Your task to perform on an android device: turn vacation reply on in the gmail app Image 0: 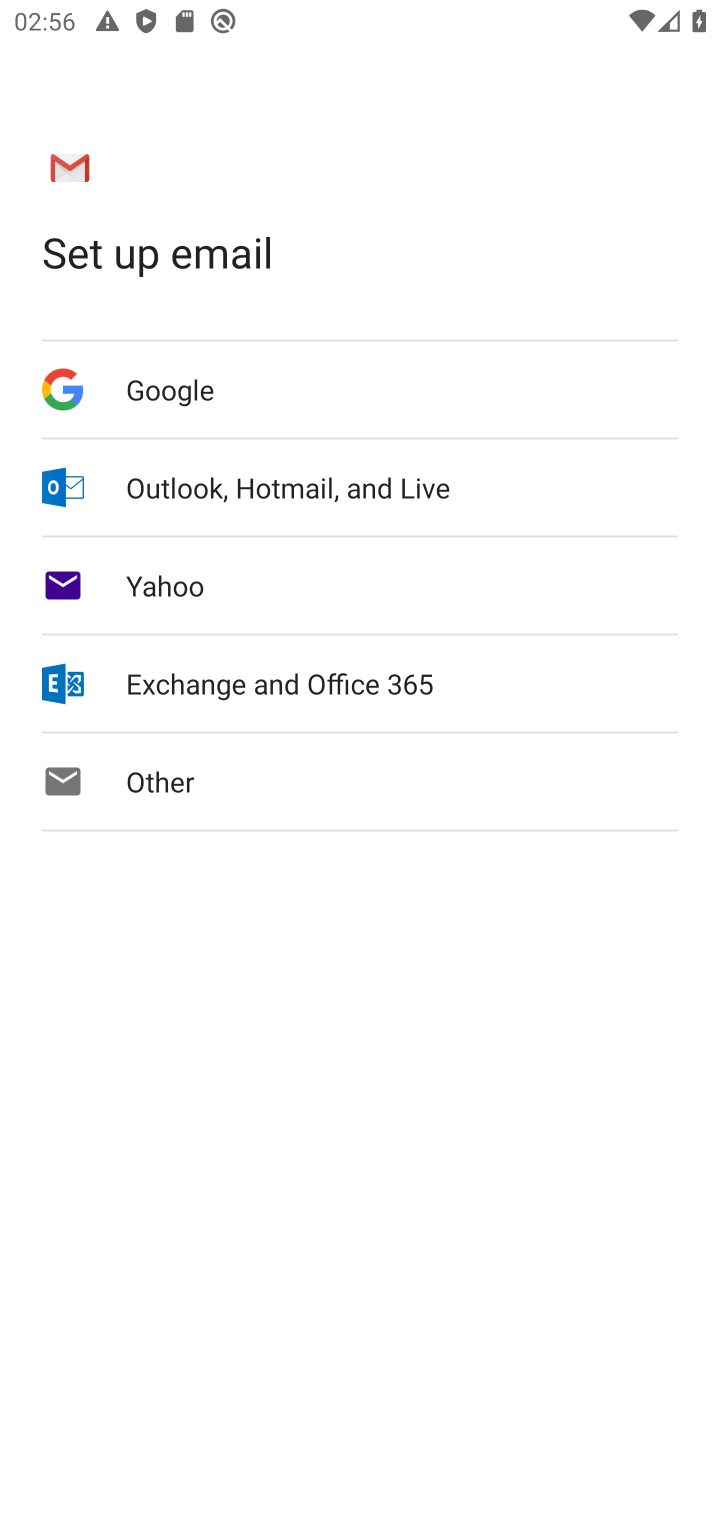
Step 0: press home button
Your task to perform on an android device: turn vacation reply on in the gmail app Image 1: 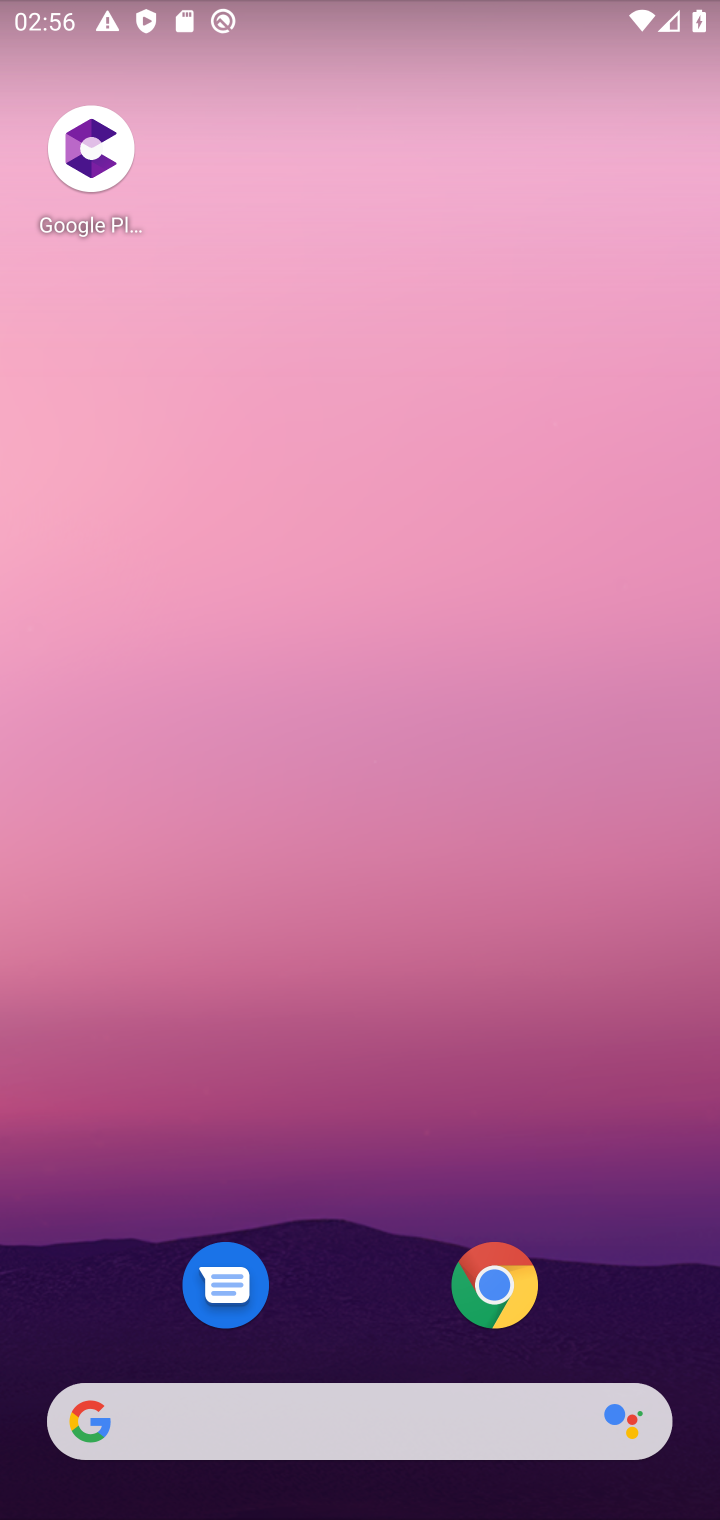
Step 1: drag from (356, 1280) to (442, 11)
Your task to perform on an android device: turn vacation reply on in the gmail app Image 2: 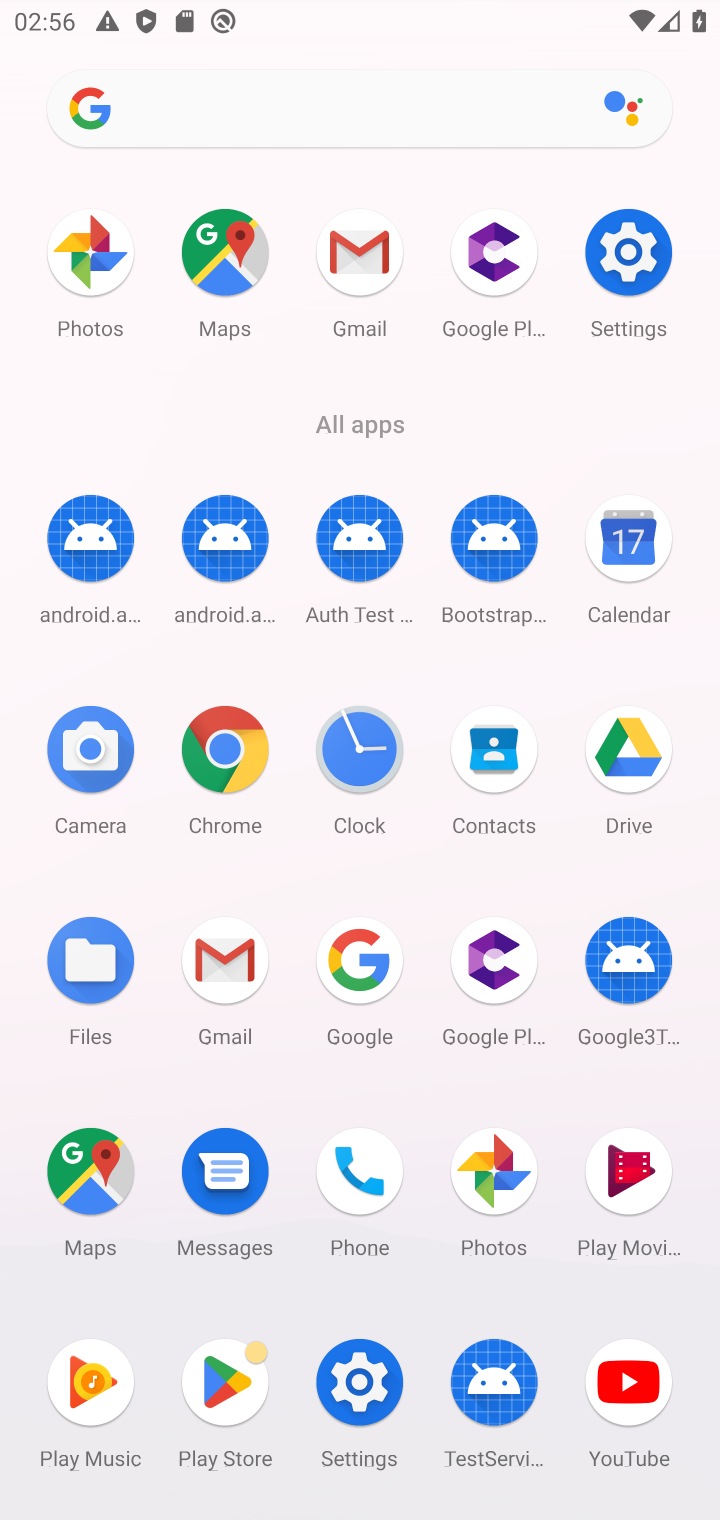
Step 2: click (227, 988)
Your task to perform on an android device: turn vacation reply on in the gmail app Image 3: 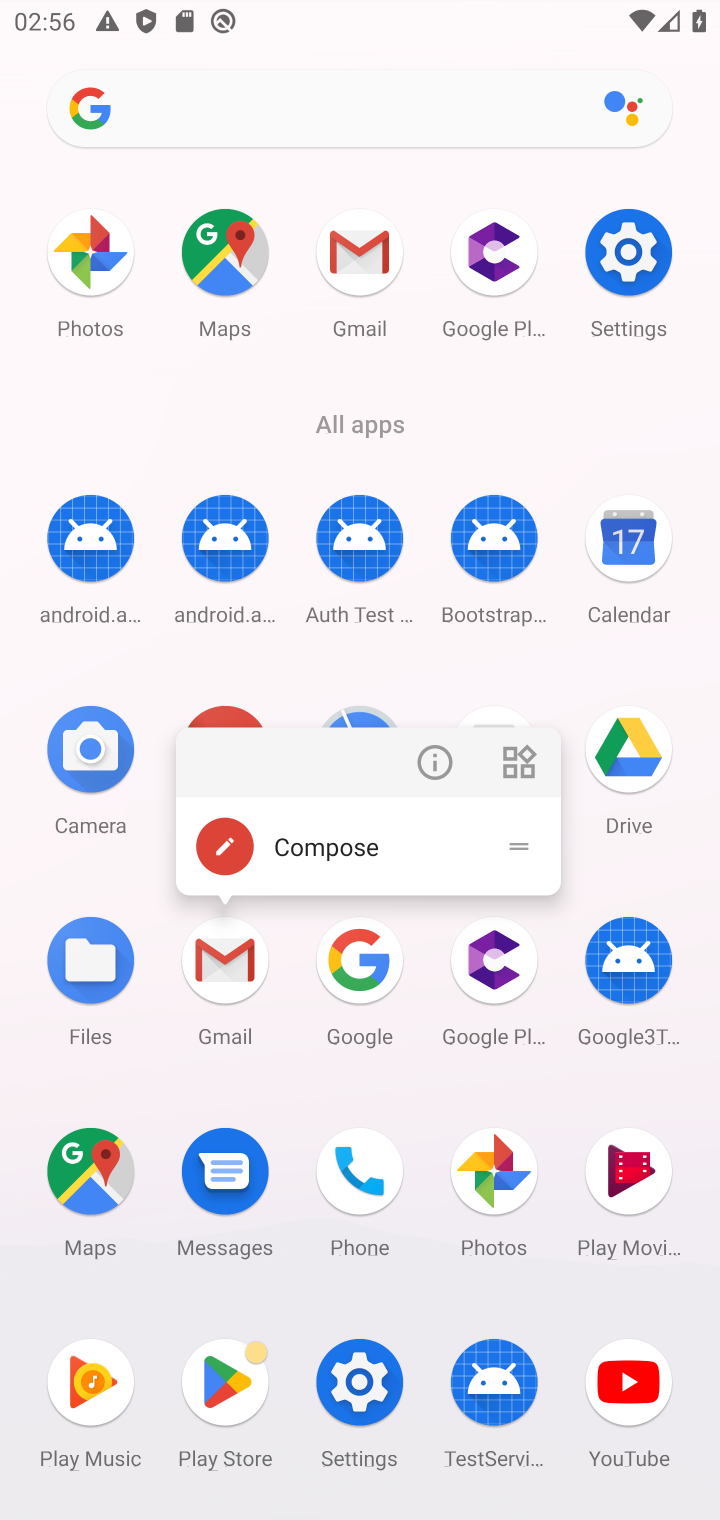
Step 3: click (251, 956)
Your task to perform on an android device: turn vacation reply on in the gmail app Image 4: 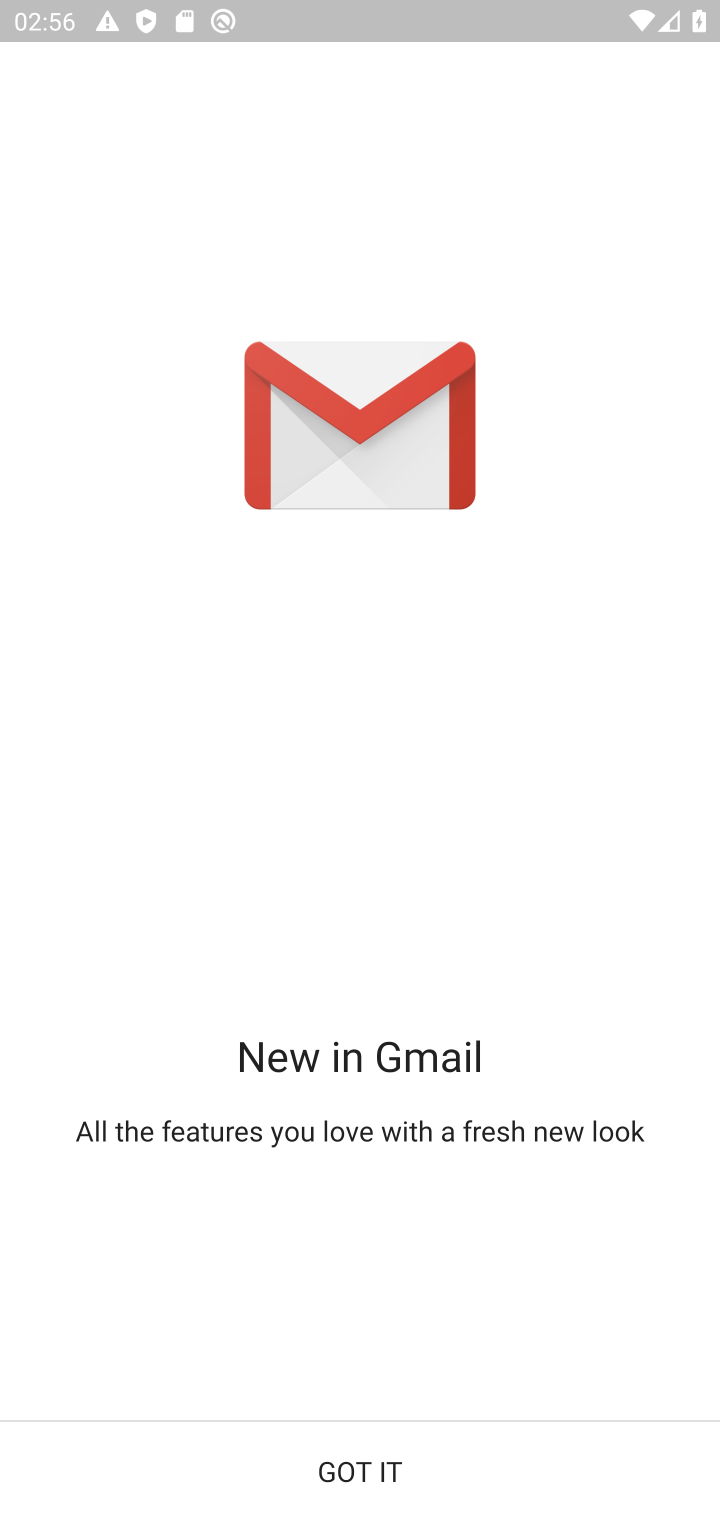
Step 4: click (408, 1468)
Your task to perform on an android device: turn vacation reply on in the gmail app Image 5: 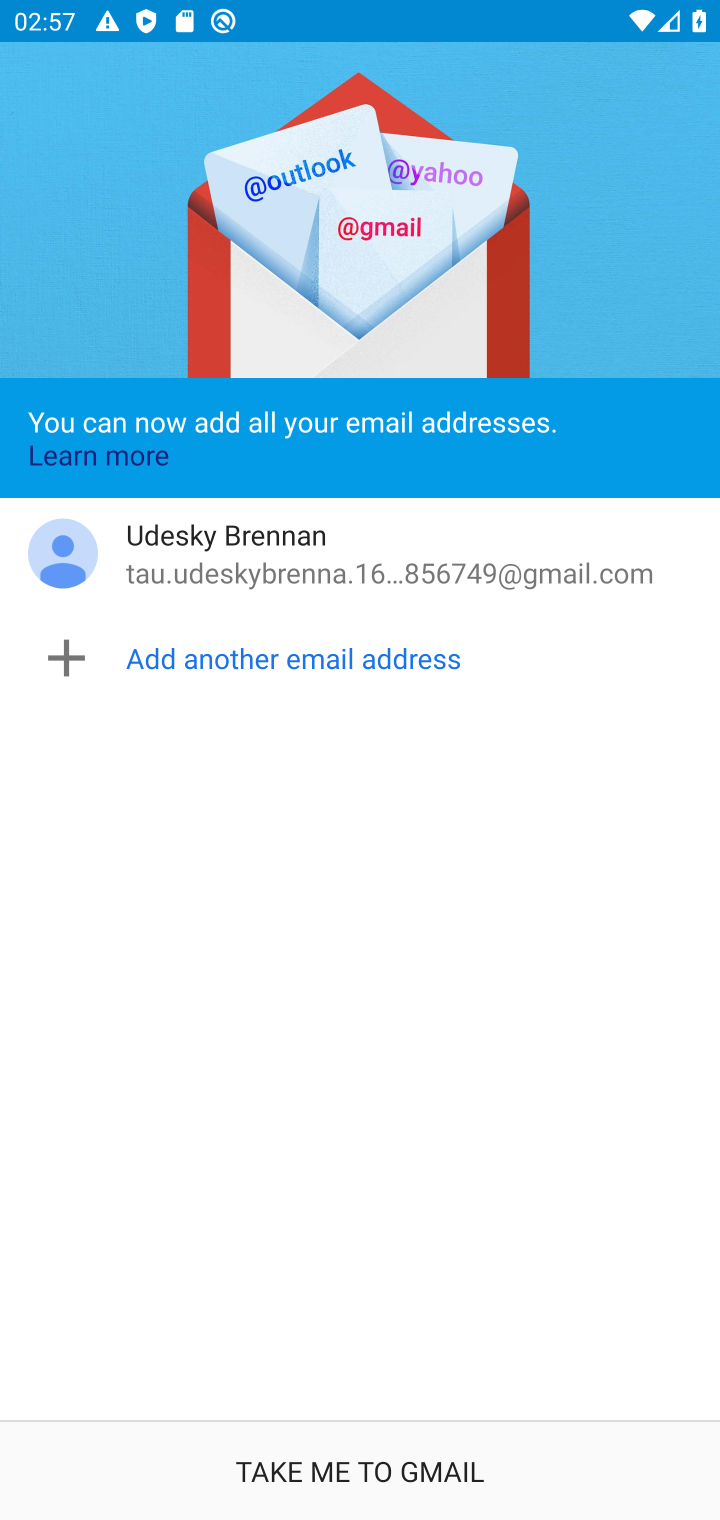
Step 5: click (363, 1434)
Your task to perform on an android device: turn vacation reply on in the gmail app Image 6: 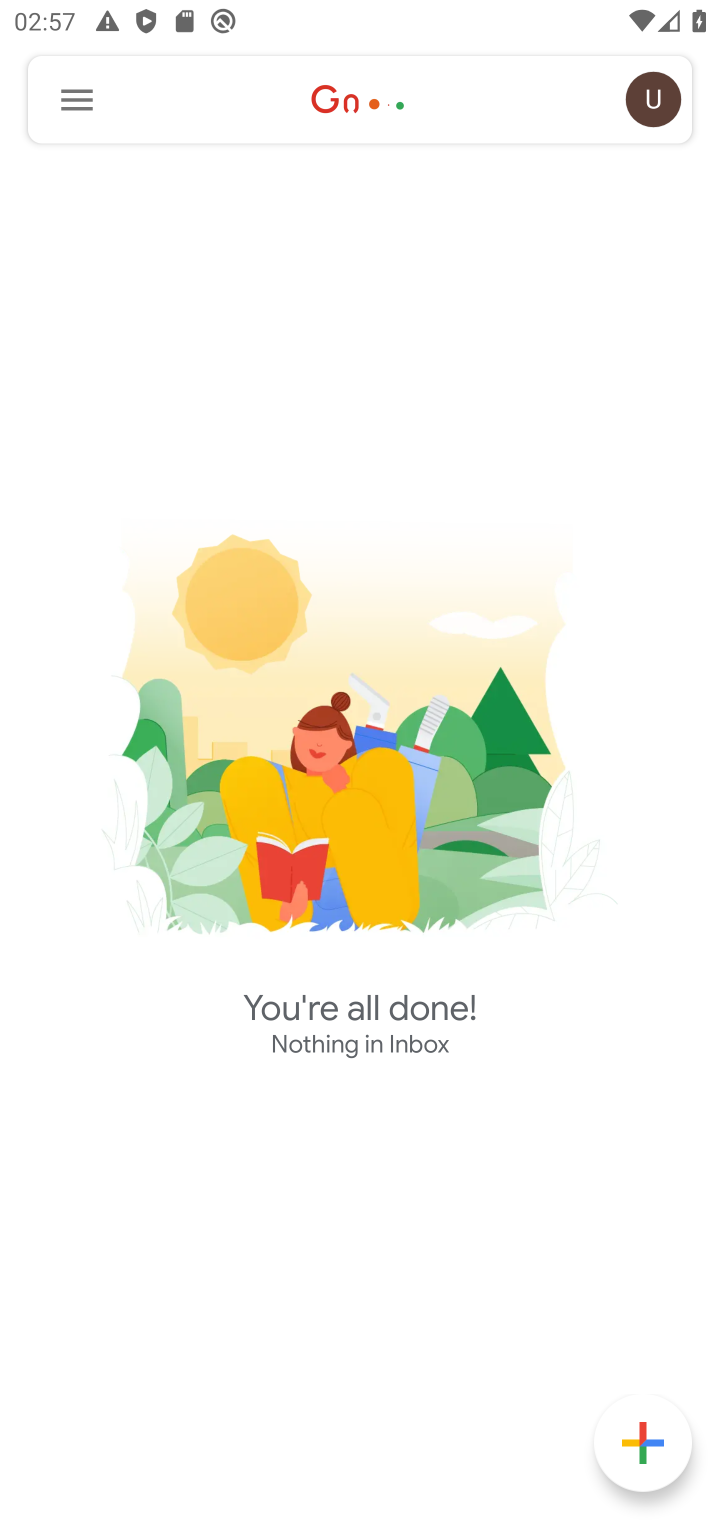
Step 6: click (85, 73)
Your task to perform on an android device: turn vacation reply on in the gmail app Image 7: 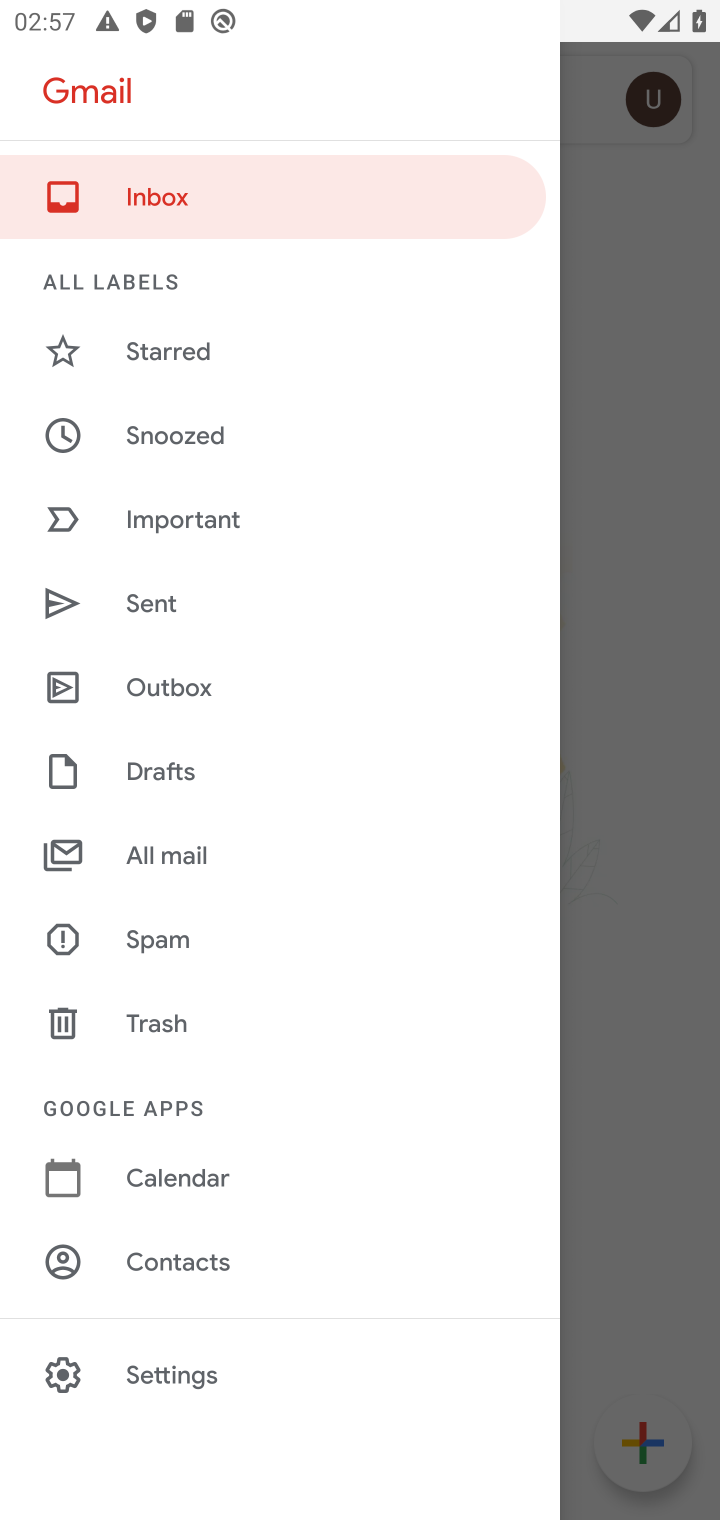
Step 7: drag from (198, 1249) to (256, 602)
Your task to perform on an android device: turn vacation reply on in the gmail app Image 8: 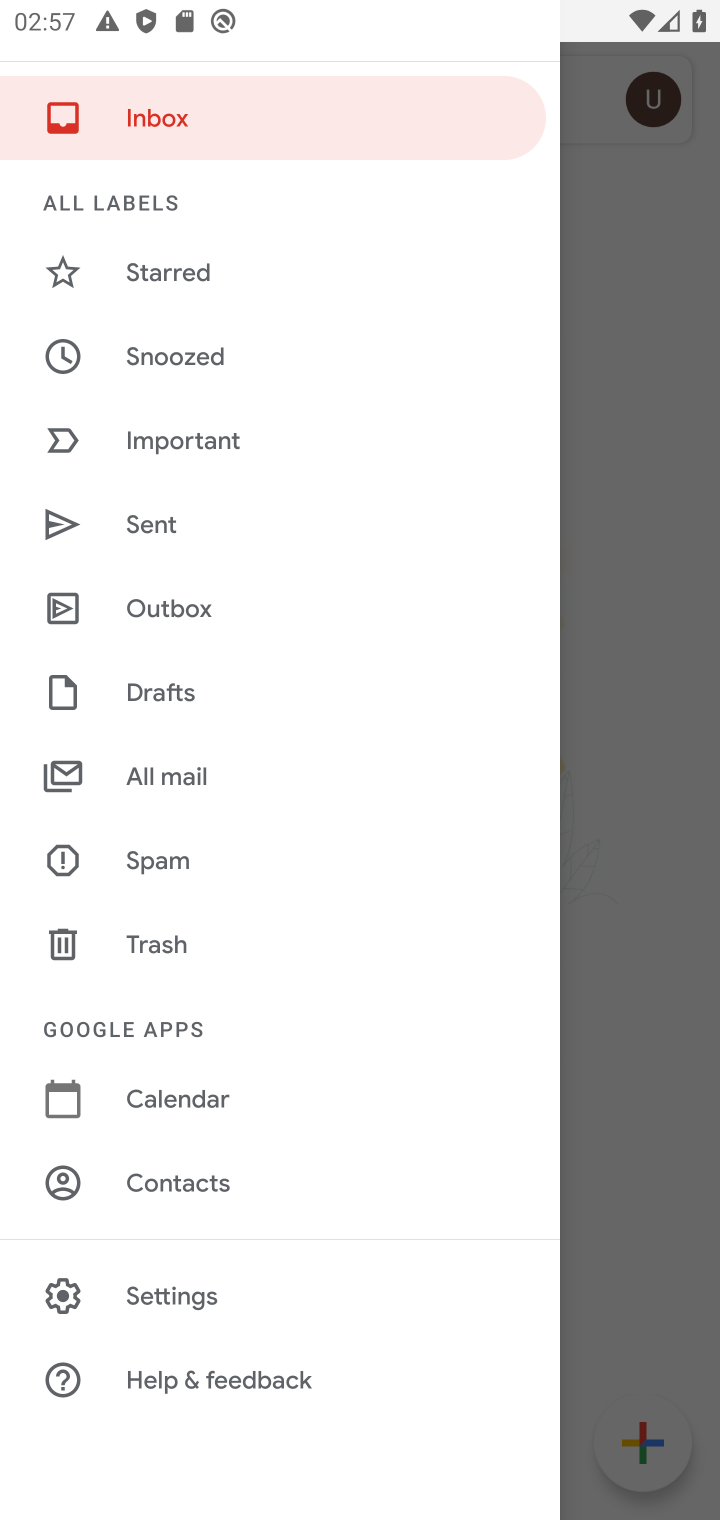
Step 8: click (171, 1297)
Your task to perform on an android device: turn vacation reply on in the gmail app Image 9: 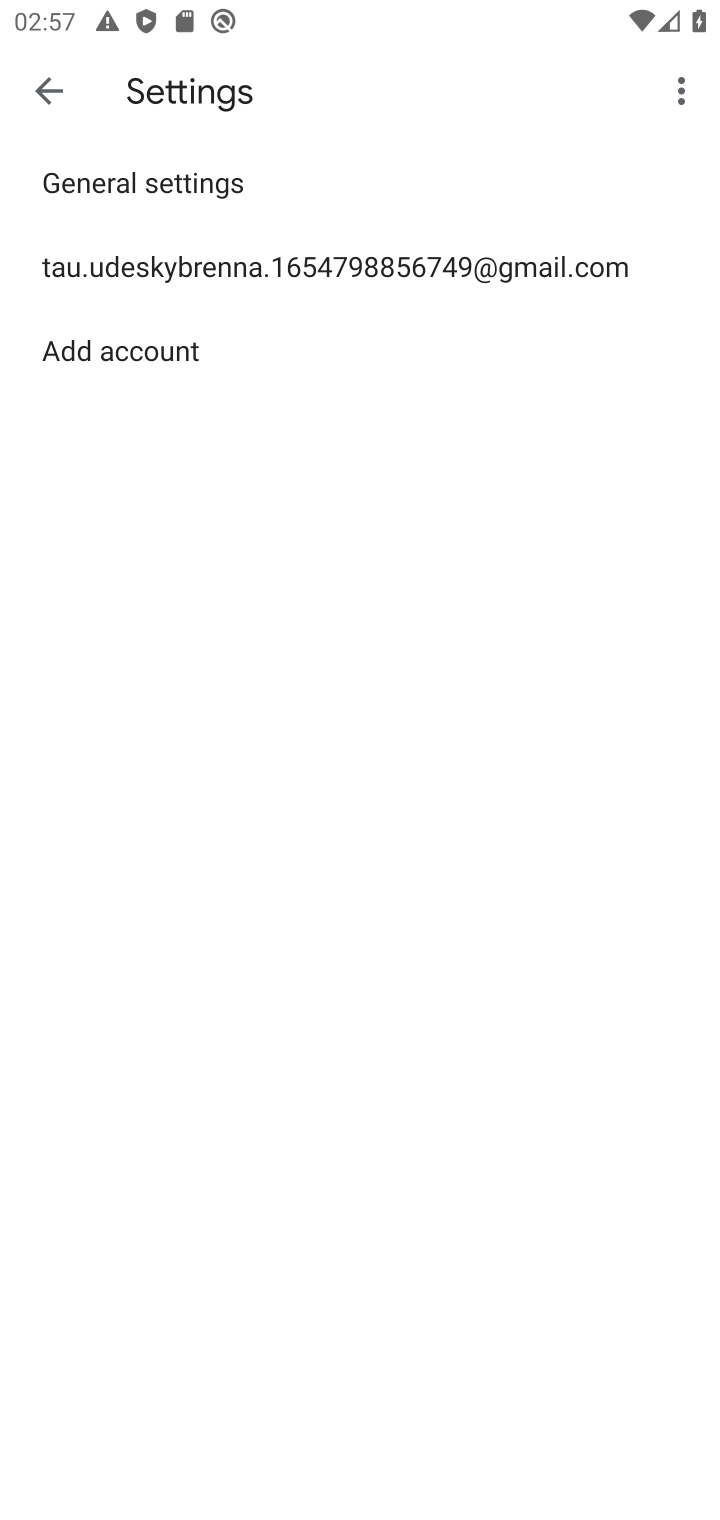
Step 9: click (258, 262)
Your task to perform on an android device: turn vacation reply on in the gmail app Image 10: 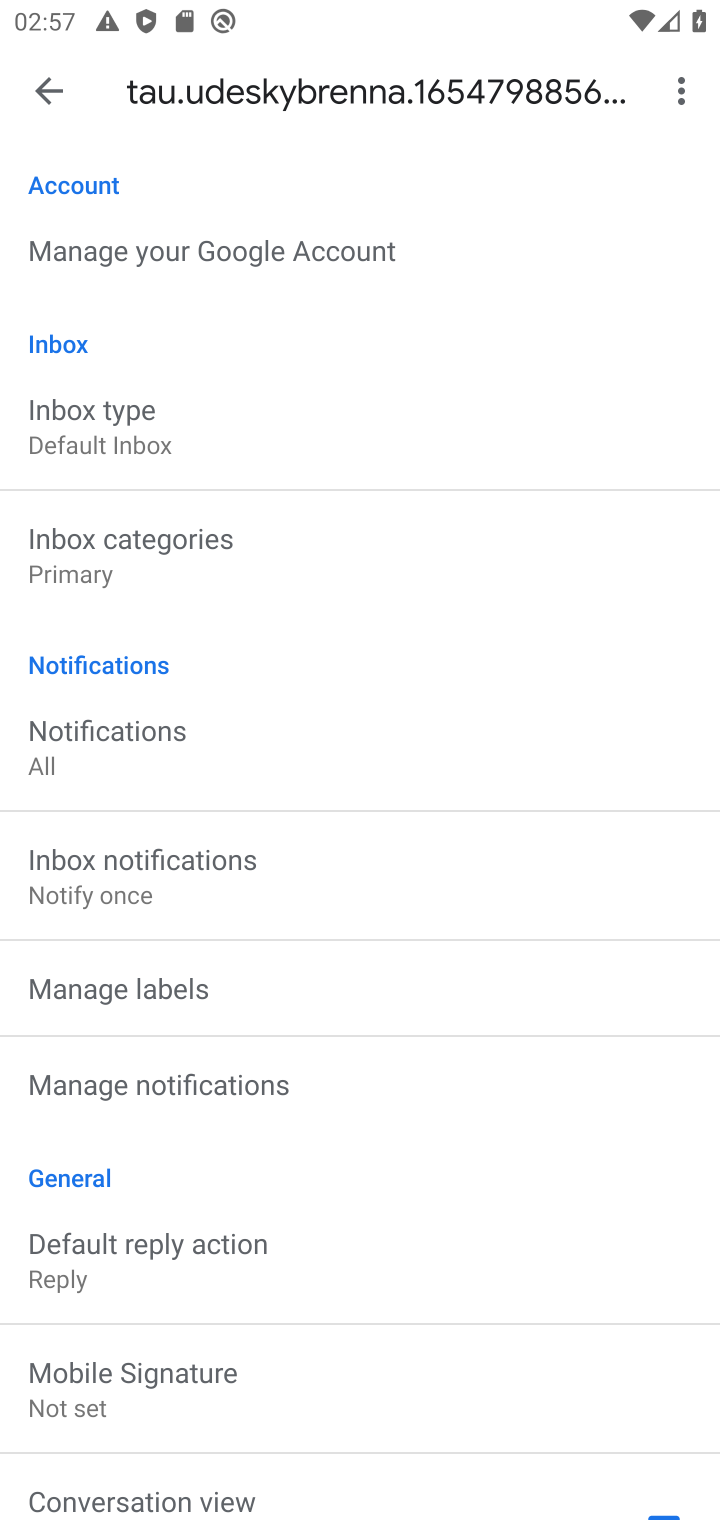
Step 10: drag from (275, 1096) to (298, 523)
Your task to perform on an android device: turn vacation reply on in the gmail app Image 11: 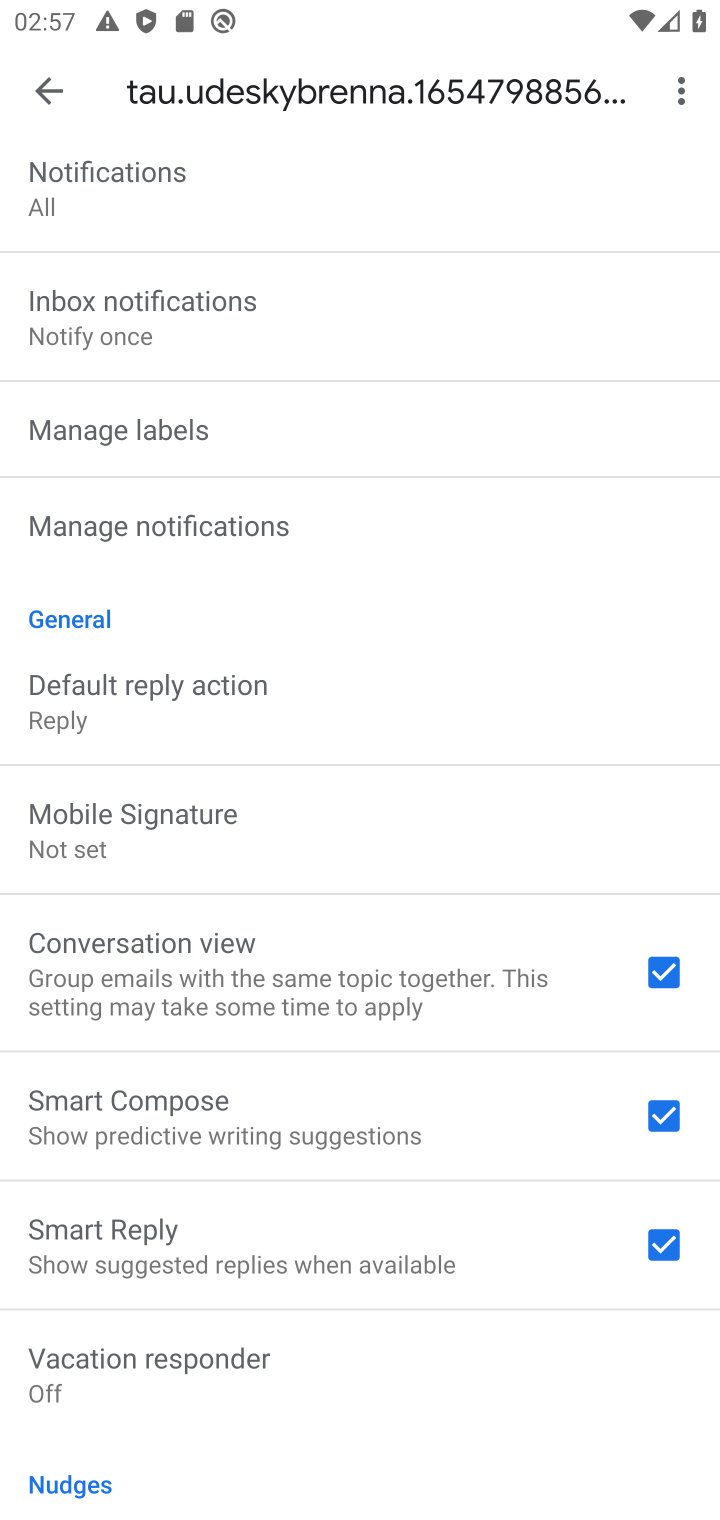
Step 11: click (221, 1371)
Your task to perform on an android device: turn vacation reply on in the gmail app Image 12: 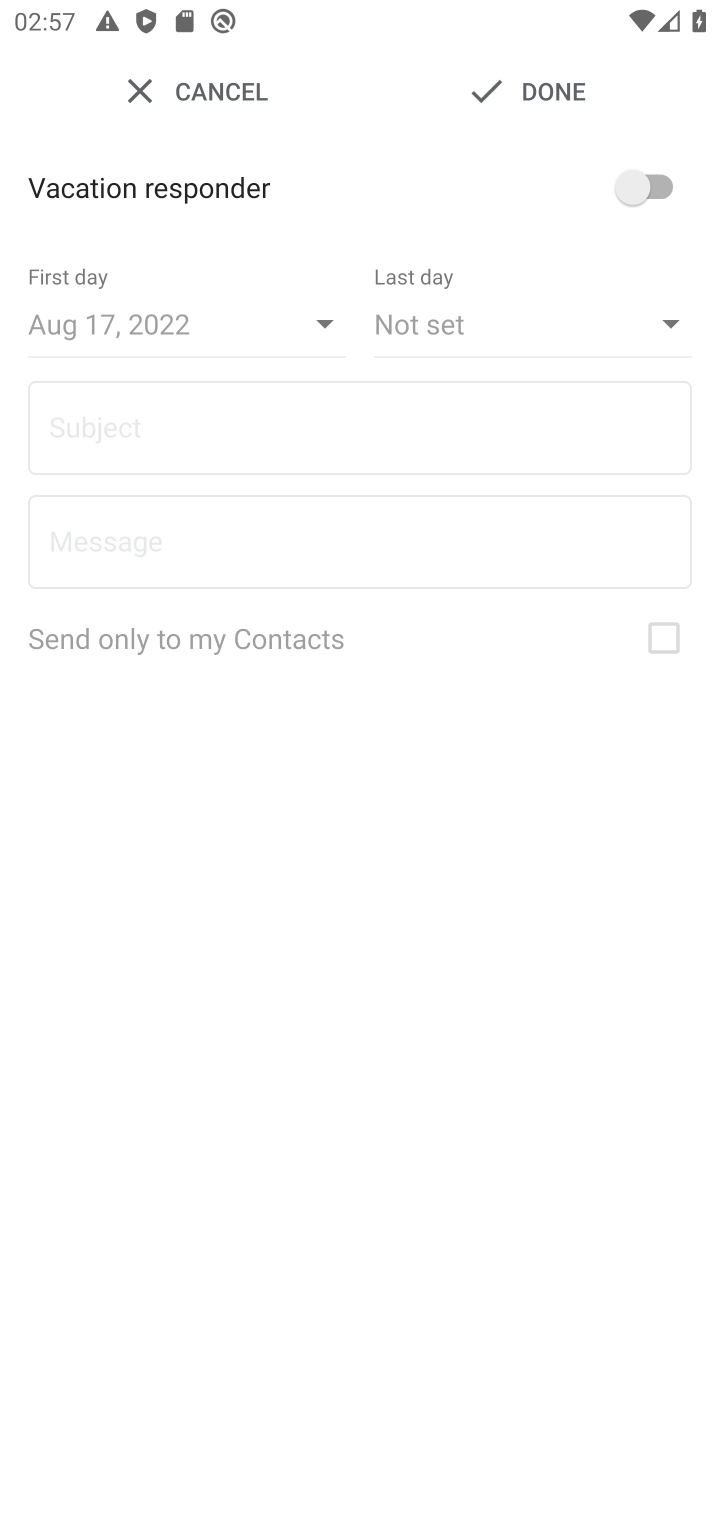
Step 12: click (675, 190)
Your task to perform on an android device: turn vacation reply on in the gmail app Image 13: 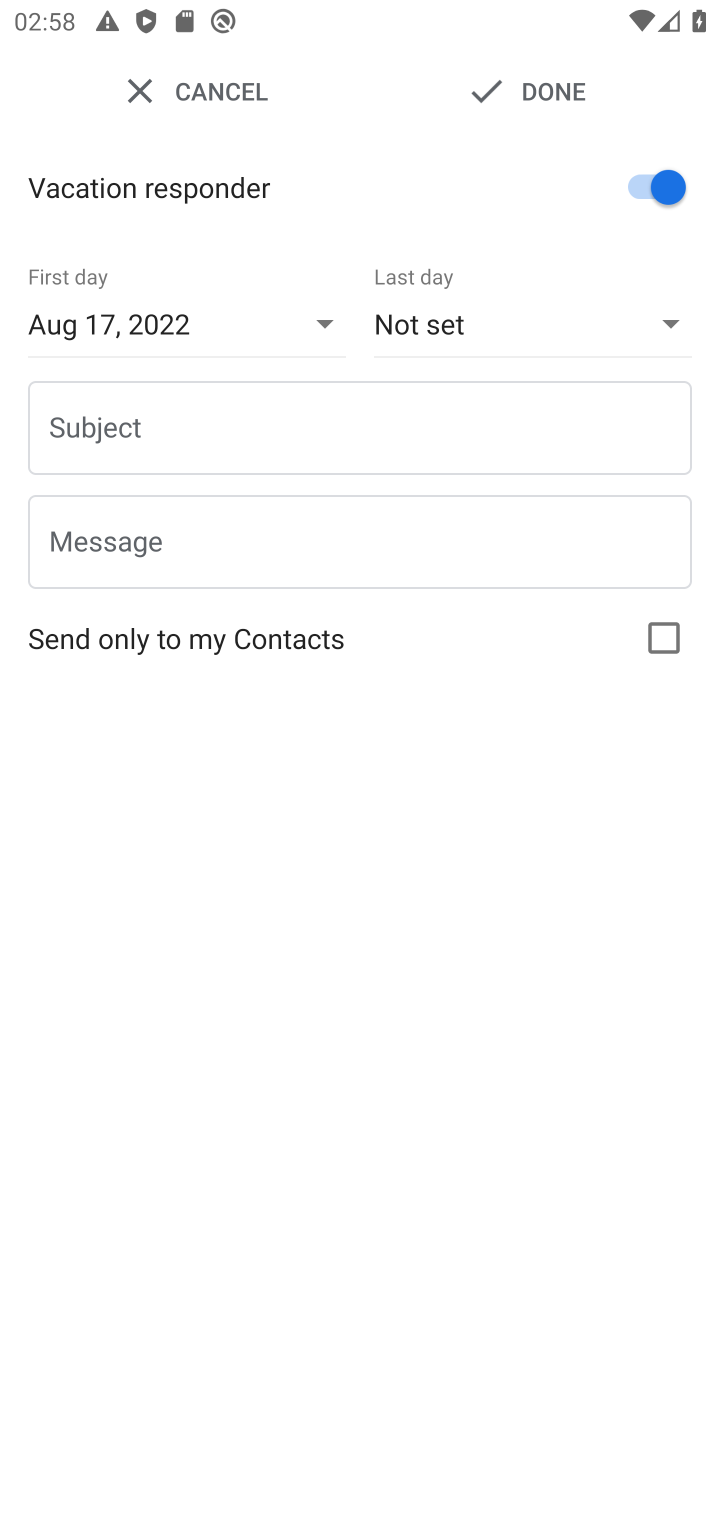
Step 13: click (139, 414)
Your task to perform on an android device: turn vacation reply on in the gmail app Image 14: 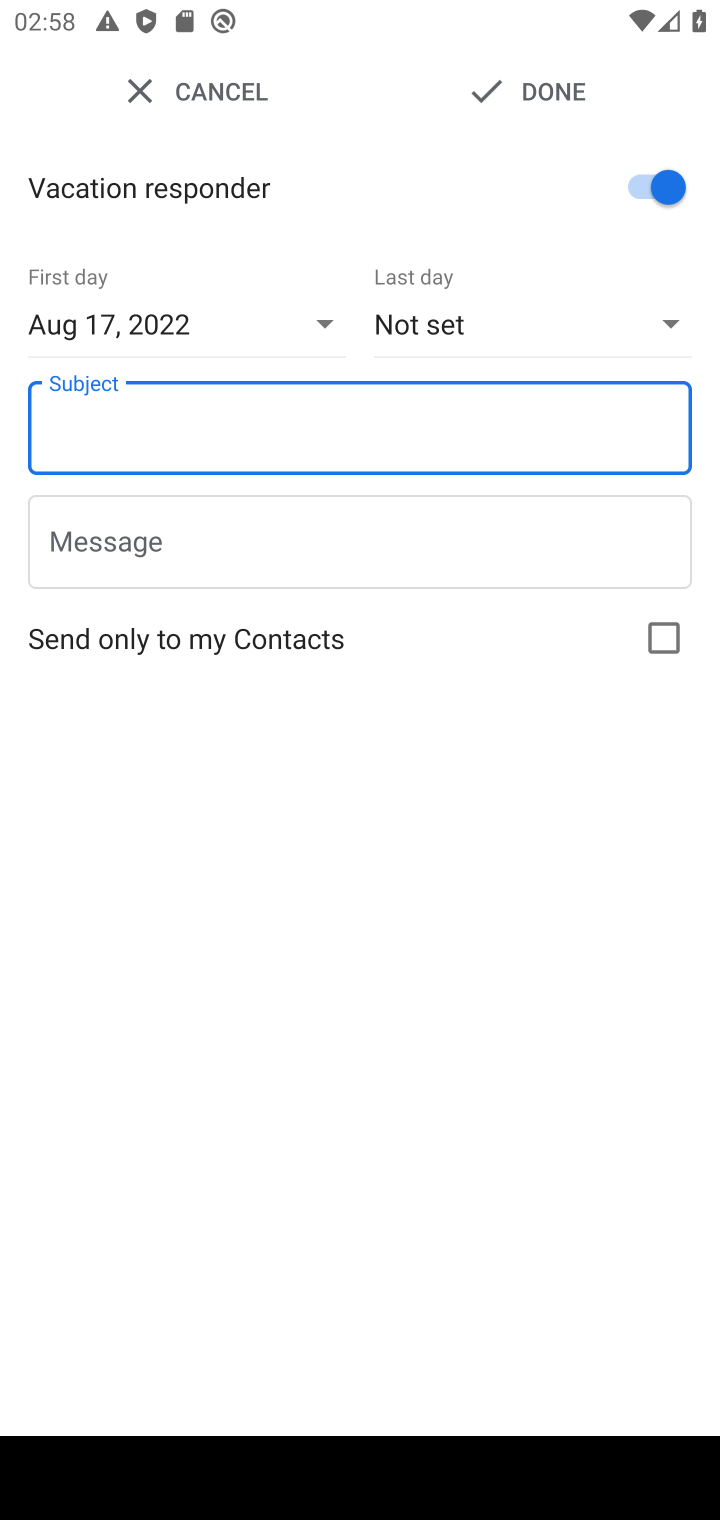
Step 14: type "Subject"
Your task to perform on an android device: turn vacation reply on in the gmail app Image 15: 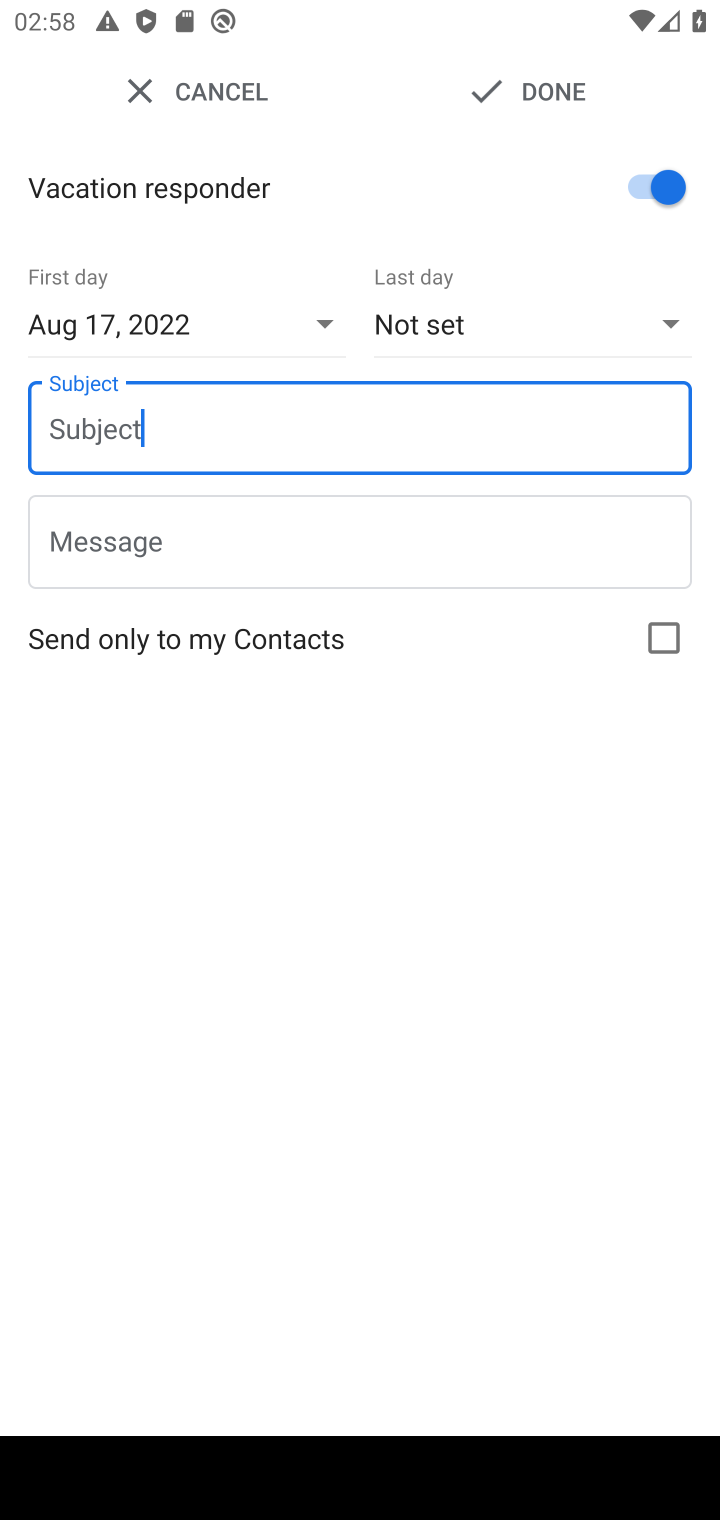
Step 15: click (536, 79)
Your task to perform on an android device: turn vacation reply on in the gmail app Image 16: 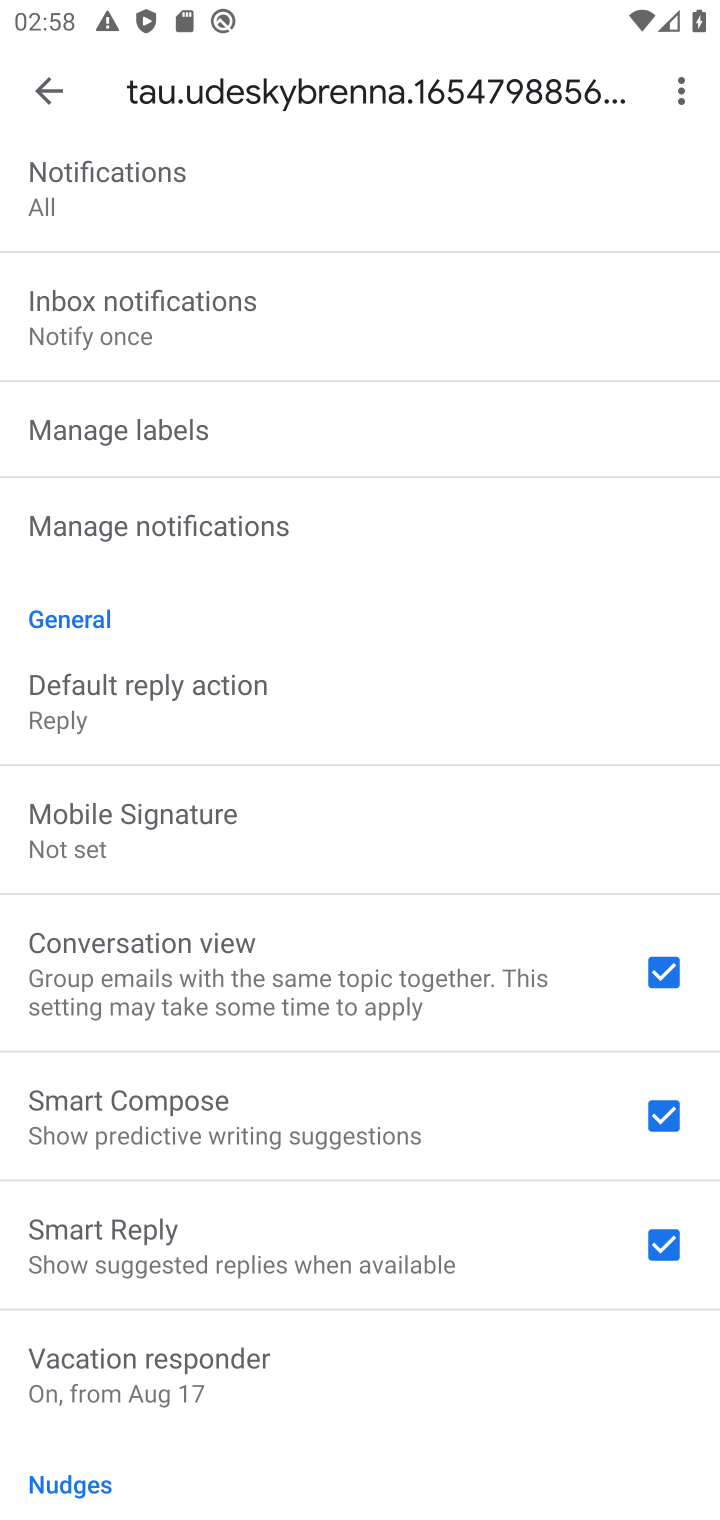
Step 16: task complete